Your task to perform on an android device: Open Google Maps Image 0: 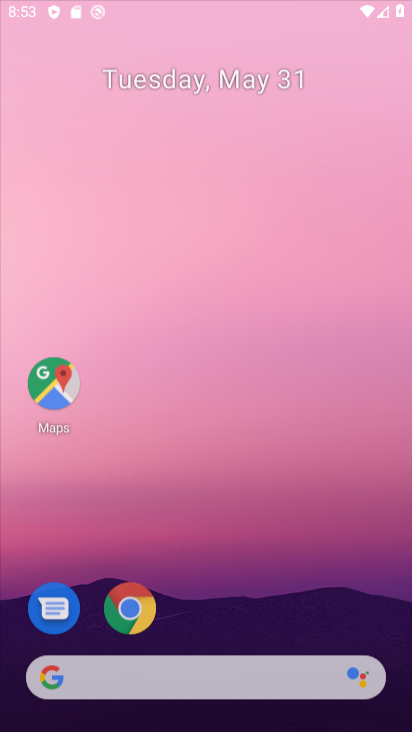
Step 0: press back button
Your task to perform on an android device: Open Google Maps Image 1: 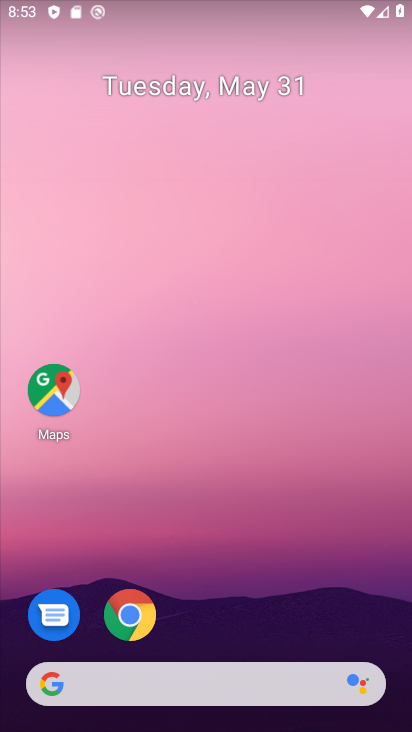
Step 1: click (57, 379)
Your task to perform on an android device: Open Google Maps Image 2: 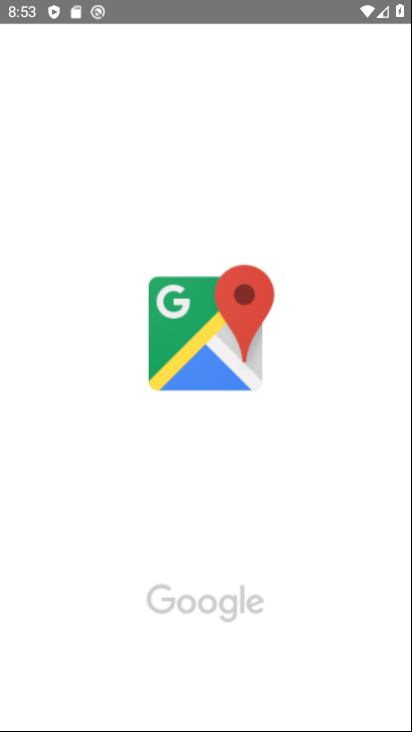
Step 2: click (291, 308)
Your task to perform on an android device: Open Google Maps Image 3: 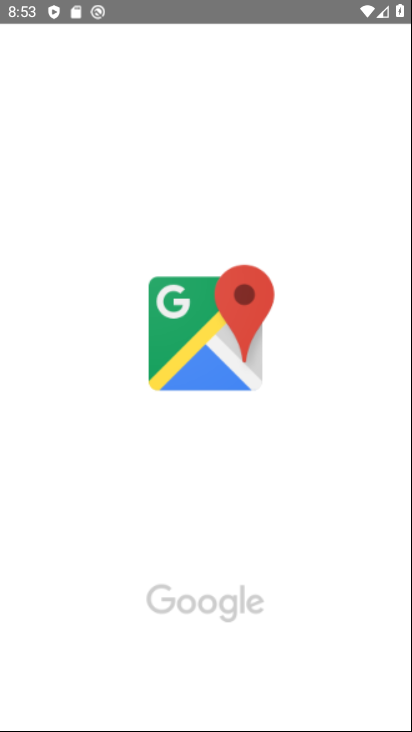
Step 3: click (291, 308)
Your task to perform on an android device: Open Google Maps Image 4: 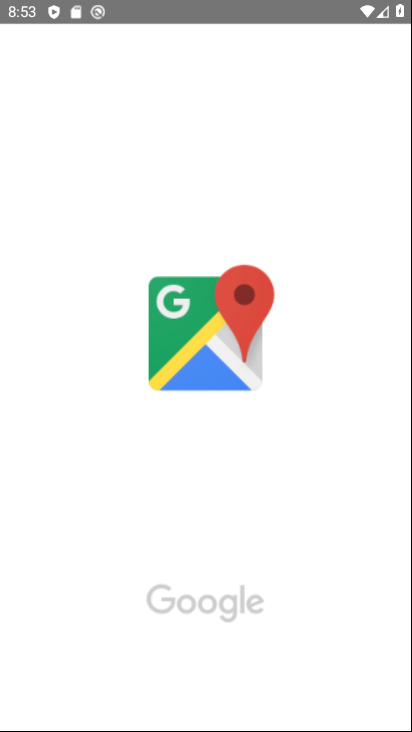
Step 4: task complete